Your task to perform on an android device: What's the weather? Image 0: 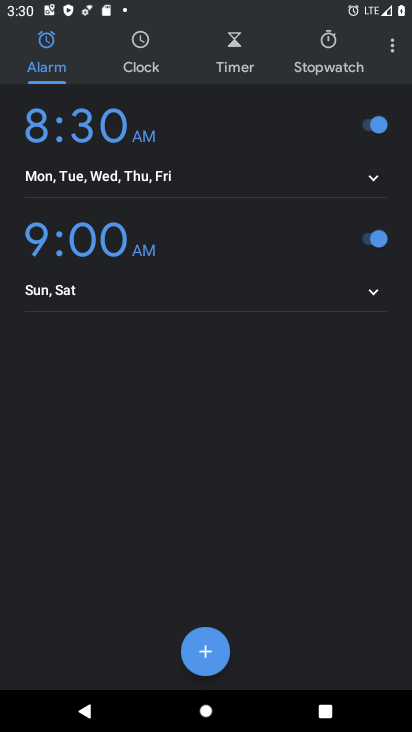
Step 0: press back button
Your task to perform on an android device: What's the weather? Image 1: 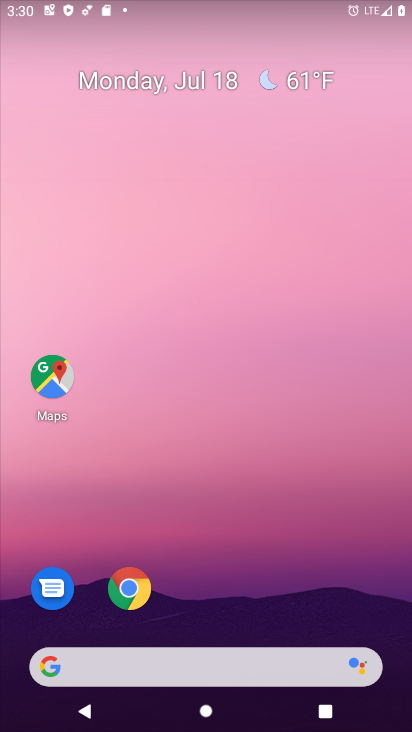
Step 1: click (150, 666)
Your task to perform on an android device: What's the weather? Image 2: 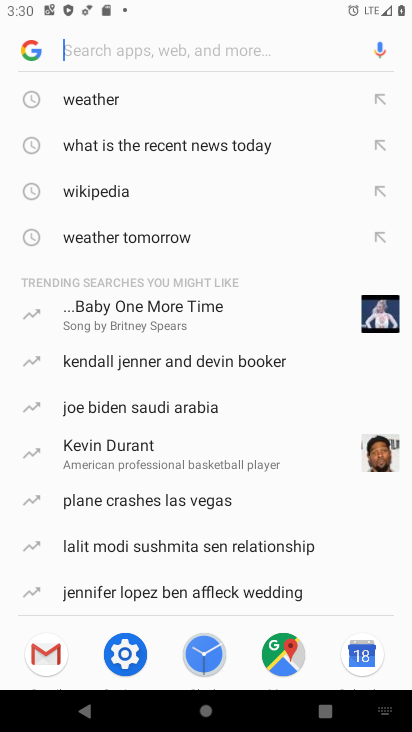
Step 2: click (93, 82)
Your task to perform on an android device: What's the weather? Image 3: 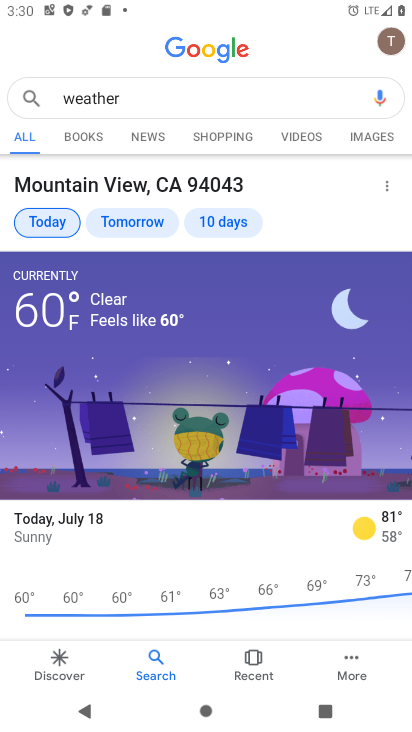
Step 3: task complete